Your task to perform on an android device: visit the assistant section in the google photos Image 0: 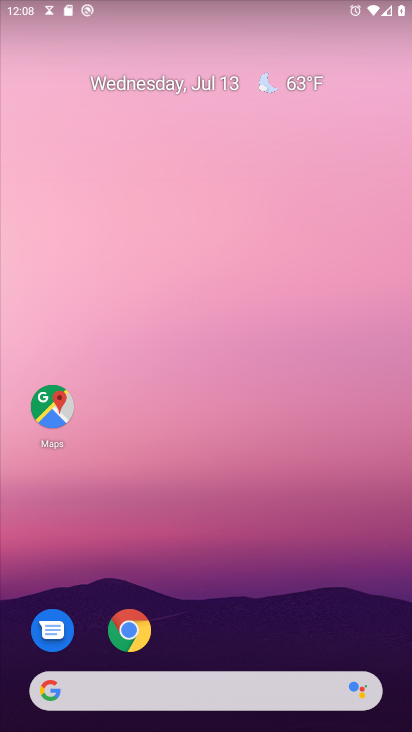
Step 0: drag from (263, 692) to (316, 119)
Your task to perform on an android device: visit the assistant section in the google photos Image 1: 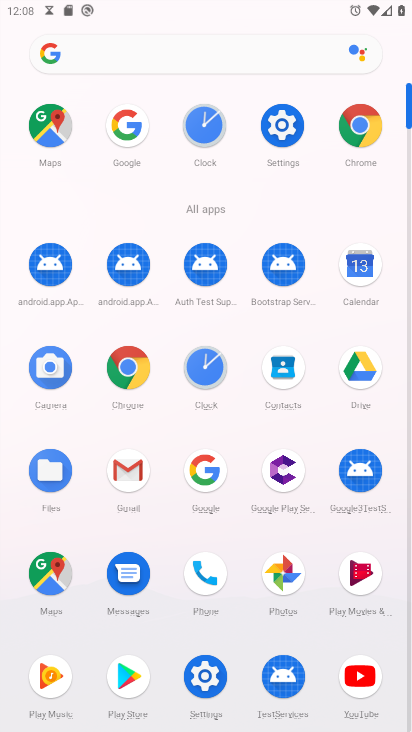
Step 1: click (263, 582)
Your task to perform on an android device: visit the assistant section in the google photos Image 2: 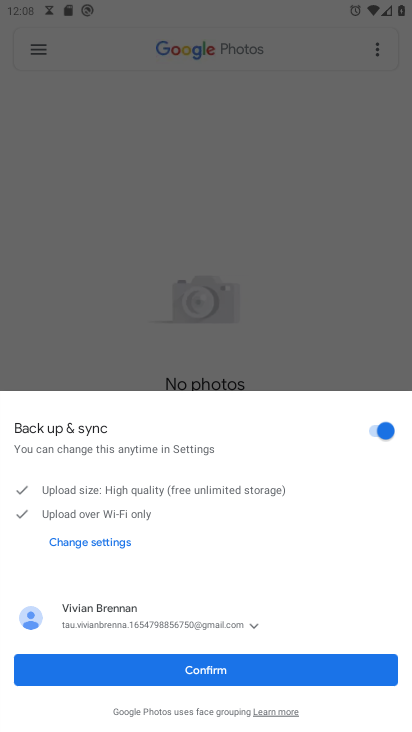
Step 2: click (215, 675)
Your task to perform on an android device: visit the assistant section in the google photos Image 3: 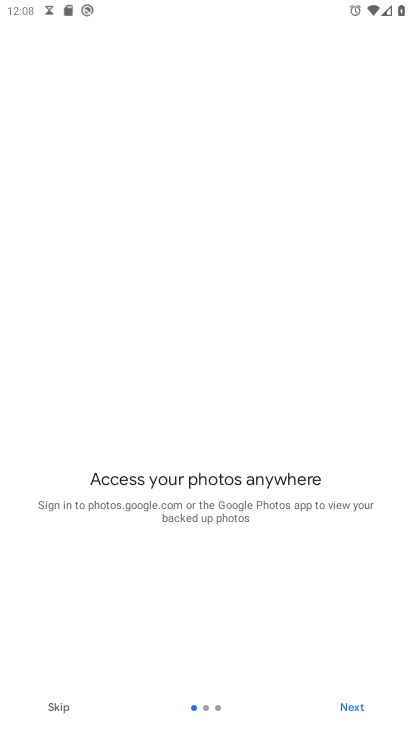
Step 3: click (357, 708)
Your task to perform on an android device: visit the assistant section in the google photos Image 4: 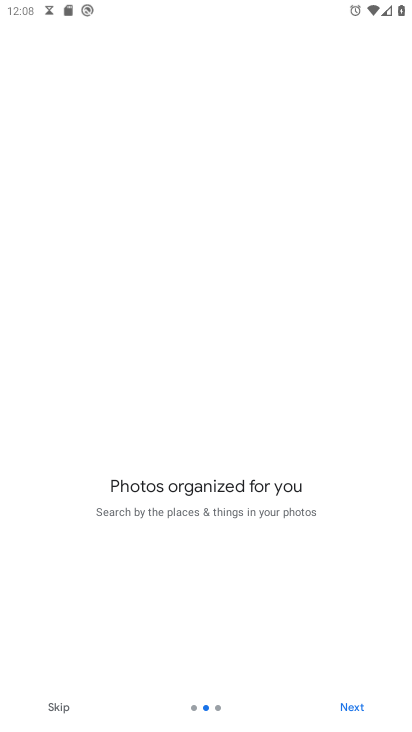
Step 4: click (357, 708)
Your task to perform on an android device: visit the assistant section in the google photos Image 5: 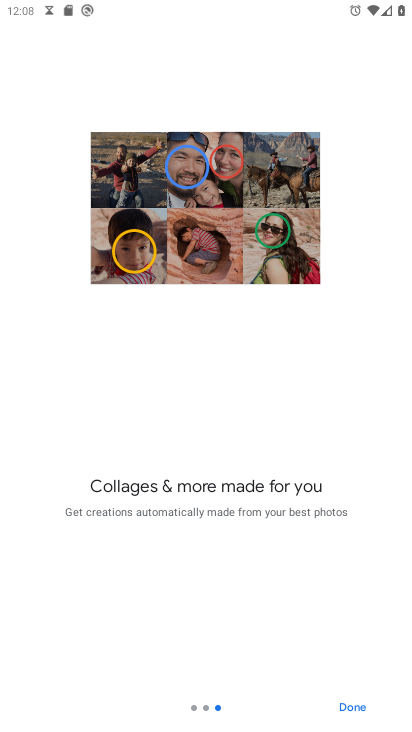
Step 5: click (357, 708)
Your task to perform on an android device: visit the assistant section in the google photos Image 6: 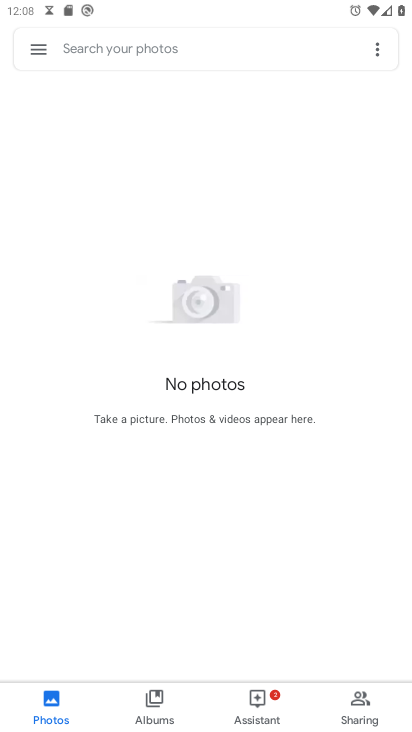
Step 6: click (253, 700)
Your task to perform on an android device: visit the assistant section in the google photos Image 7: 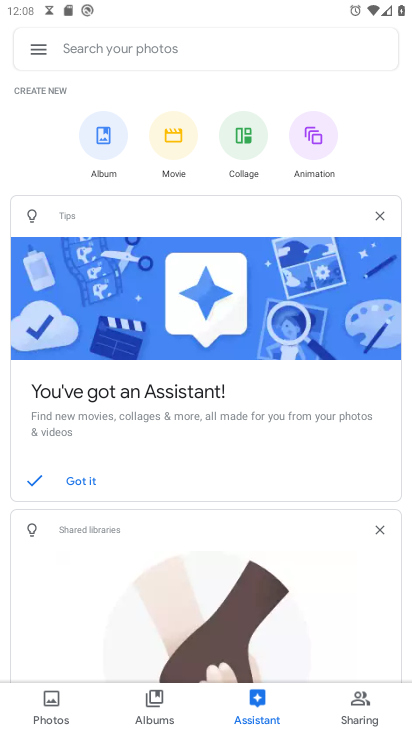
Step 7: task complete